Your task to perform on an android device: turn on wifi Image 0: 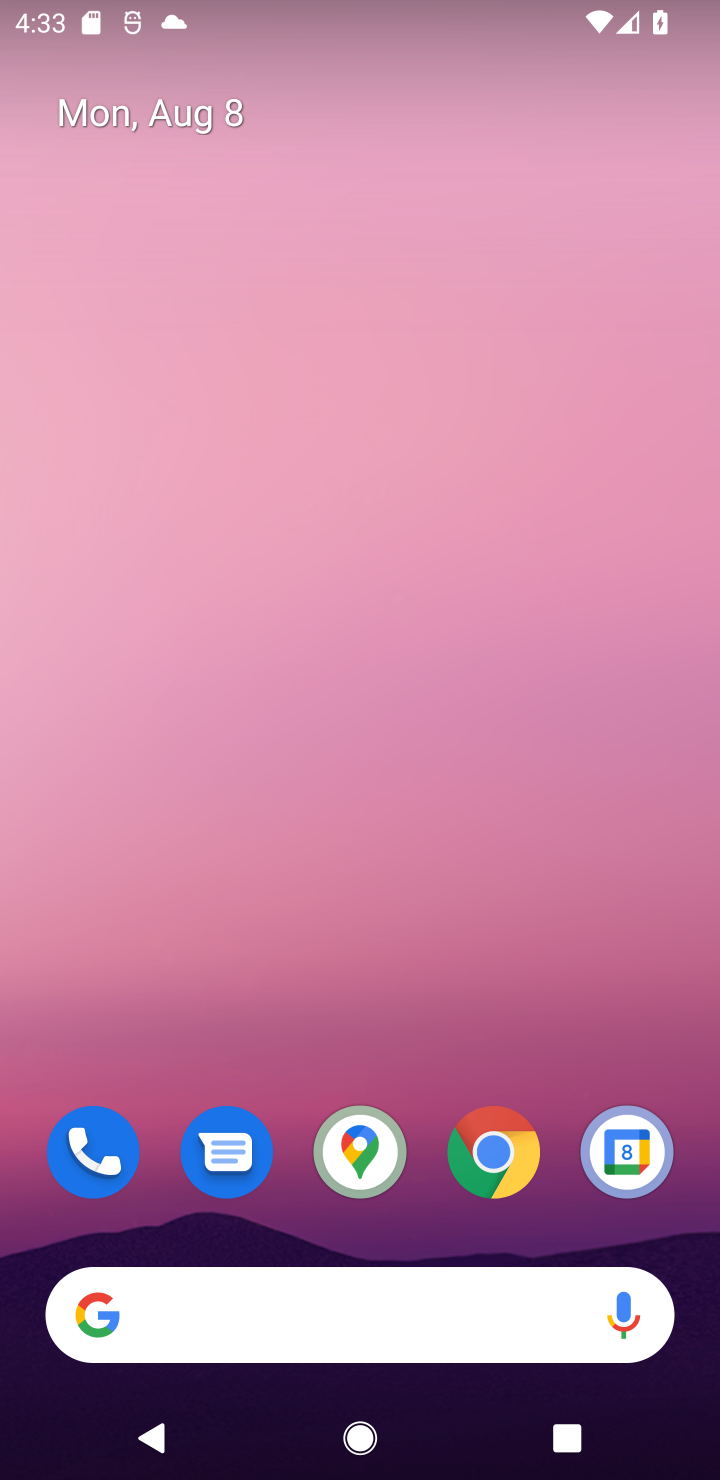
Step 0: drag from (137, 16) to (174, 1162)
Your task to perform on an android device: turn on wifi Image 1: 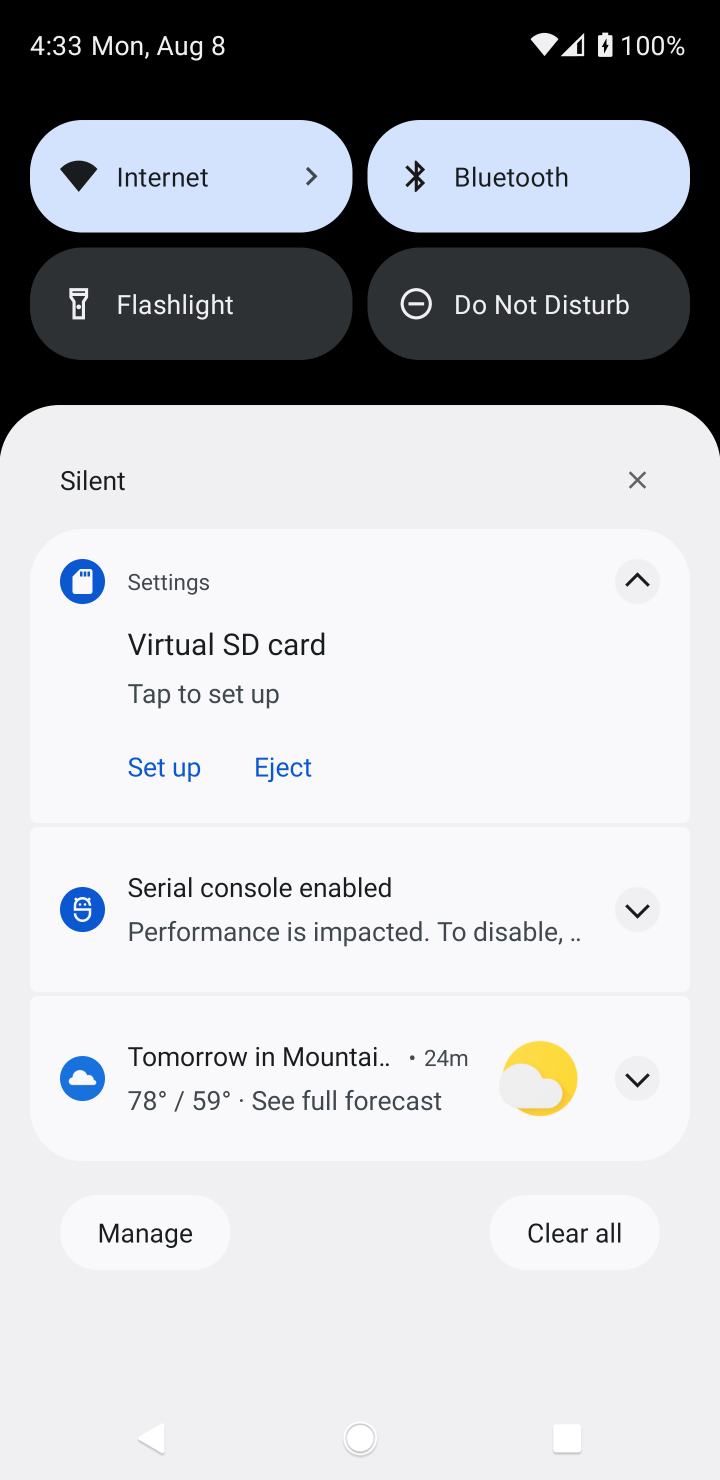
Step 1: task complete